Your task to perform on an android device: Go to Yahoo.com Image 0: 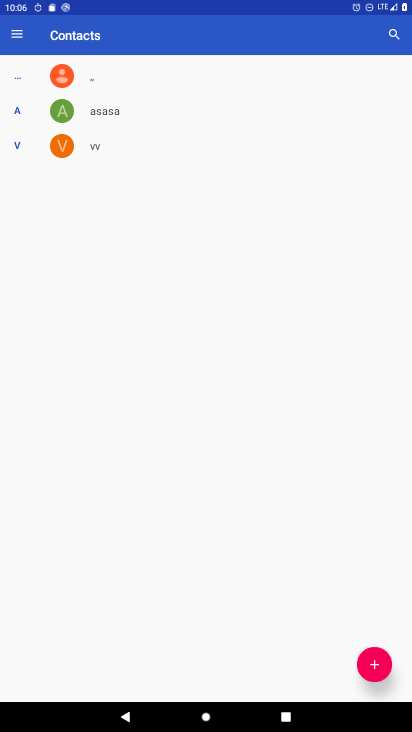
Step 0: press home button
Your task to perform on an android device: Go to Yahoo.com Image 1: 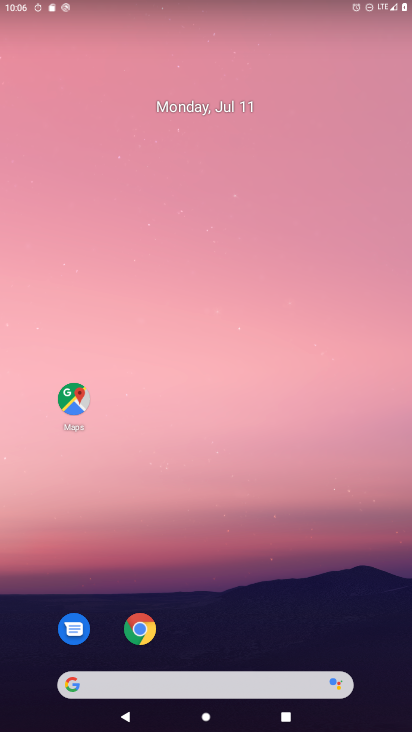
Step 1: click (144, 628)
Your task to perform on an android device: Go to Yahoo.com Image 2: 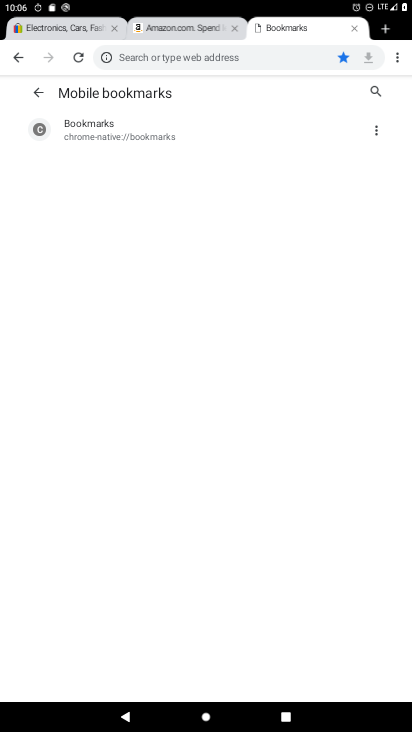
Step 2: click (384, 35)
Your task to perform on an android device: Go to Yahoo.com Image 3: 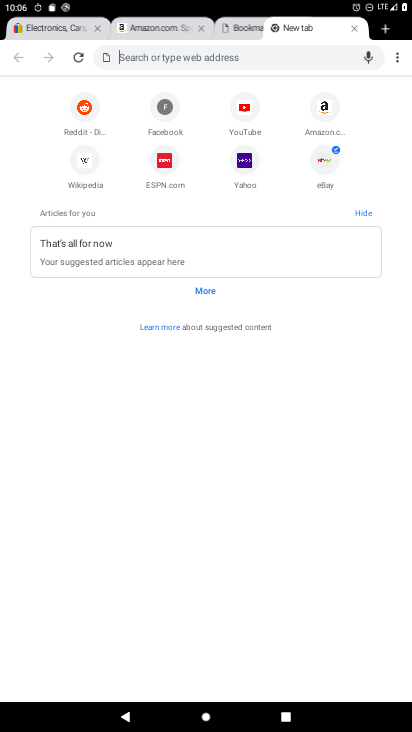
Step 3: click (249, 172)
Your task to perform on an android device: Go to Yahoo.com Image 4: 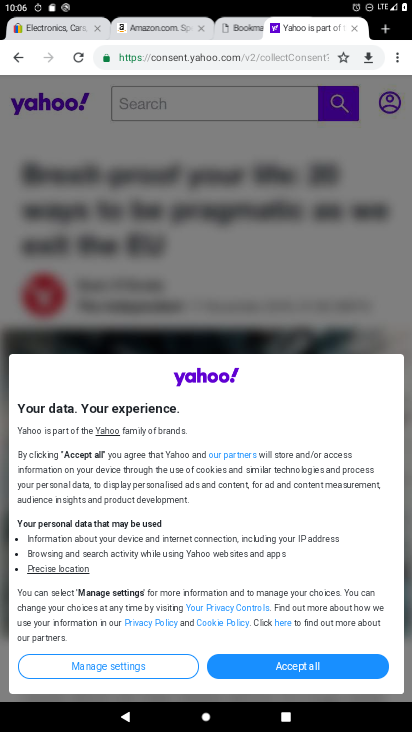
Step 4: task complete